Your task to perform on an android device: toggle sleep mode Image 0: 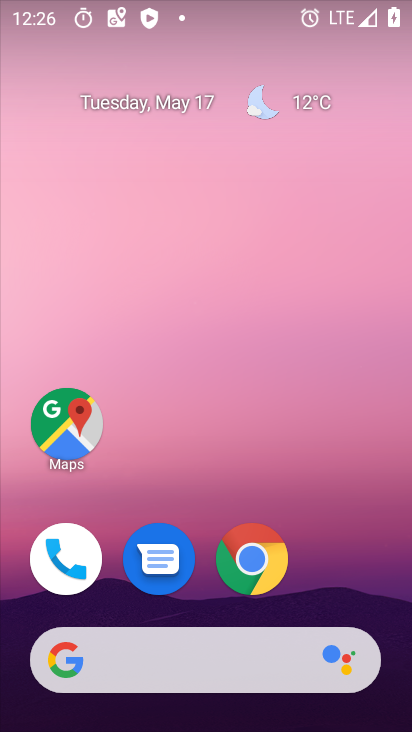
Step 0: drag from (363, 488) to (344, 107)
Your task to perform on an android device: toggle sleep mode Image 1: 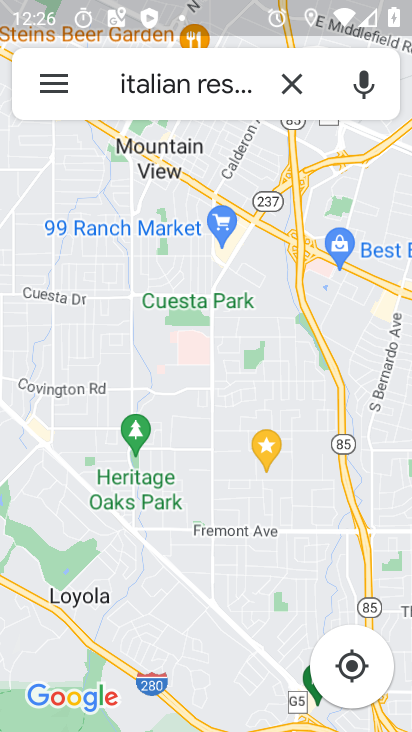
Step 1: press home button
Your task to perform on an android device: toggle sleep mode Image 2: 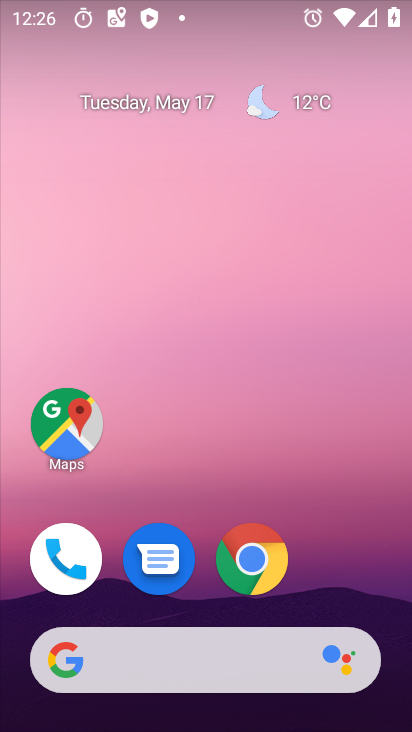
Step 2: drag from (368, 530) to (316, 132)
Your task to perform on an android device: toggle sleep mode Image 3: 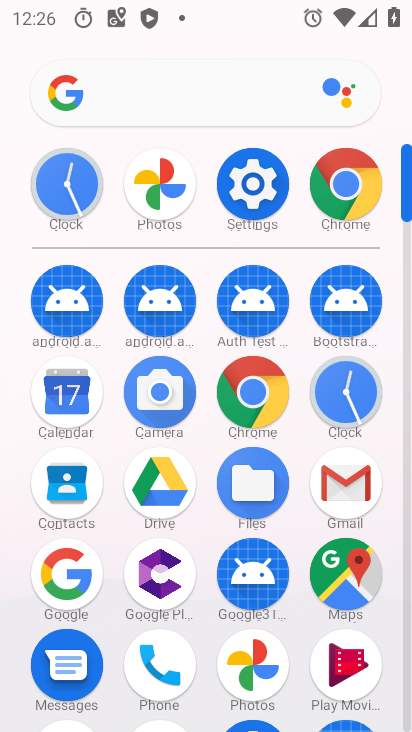
Step 3: click (260, 204)
Your task to perform on an android device: toggle sleep mode Image 4: 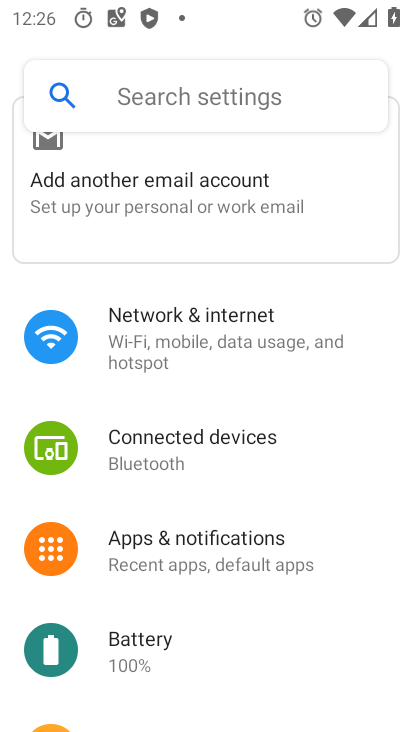
Step 4: drag from (250, 638) to (322, 248)
Your task to perform on an android device: toggle sleep mode Image 5: 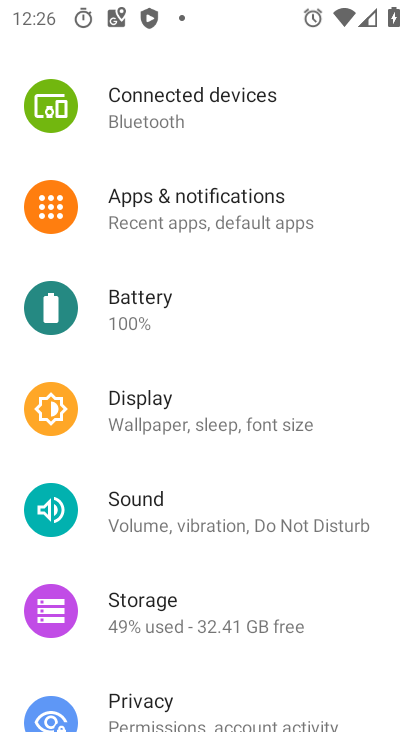
Step 5: click (184, 403)
Your task to perform on an android device: toggle sleep mode Image 6: 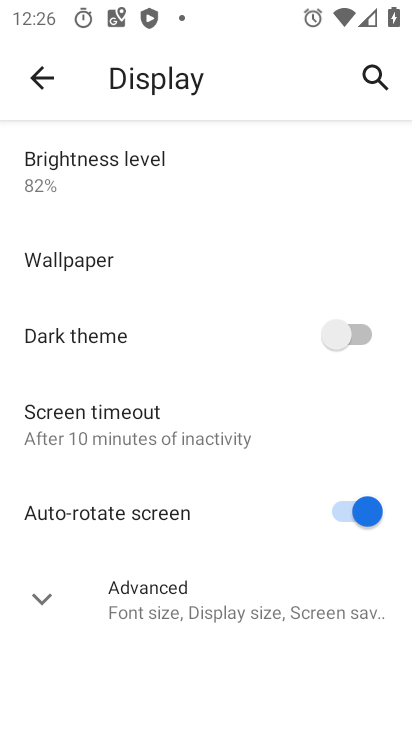
Step 6: click (173, 419)
Your task to perform on an android device: toggle sleep mode Image 7: 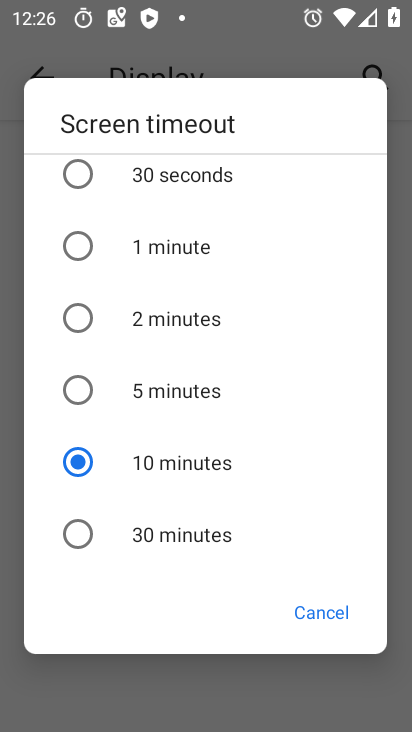
Step 7: click (173, 520)
Your task to perform on an android device: toggle sleep mode Image 8: 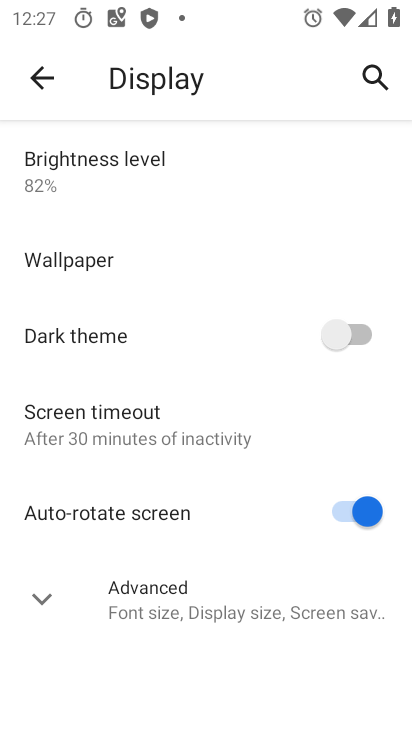
Step 8: task complete